Your task to perform on an android device: Open the calendar app, open the side menu, and click the "Day" option Image 0: 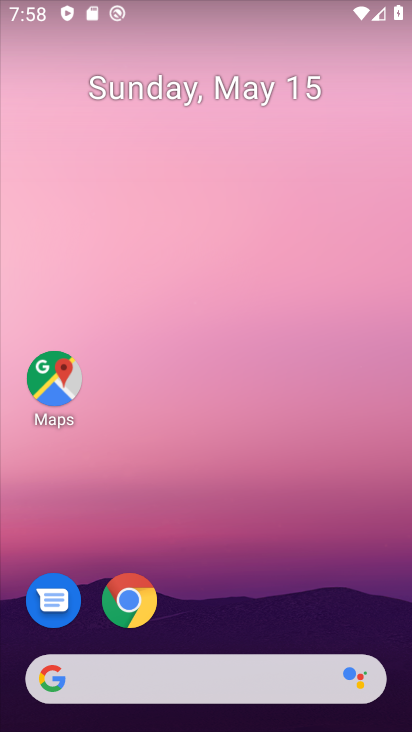
Step 0: drag from (179, 609) to (170, 111)
Your task to perform on an android device: Open the calendar app, open the side menu, and click the "Day" option Image 1: 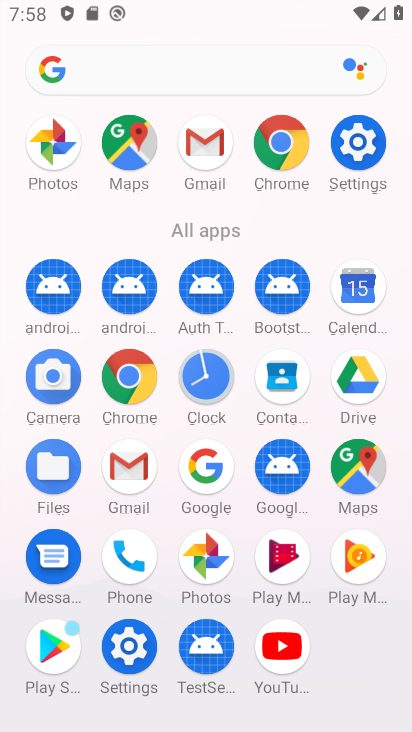
Step 1: click (366, 277)
Your task to perform on an android device: Open the calendar app, open the side menu, and click the "Day" option Image 2: 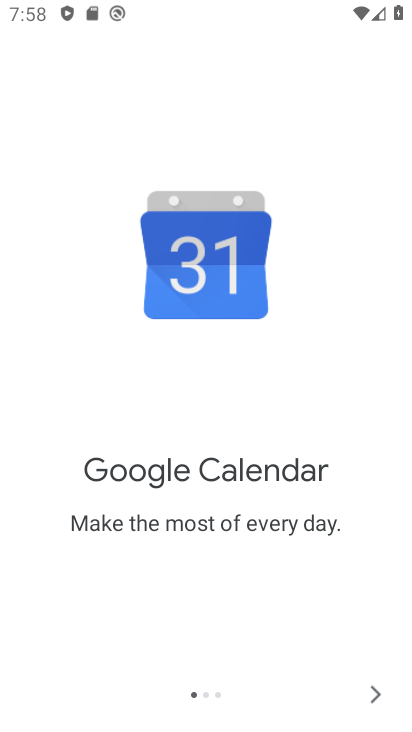
Step 2: click (381, 693)
Your task to perform on an android device: Open the calendar app, open the side menu, and click the "Day" option Image 3: 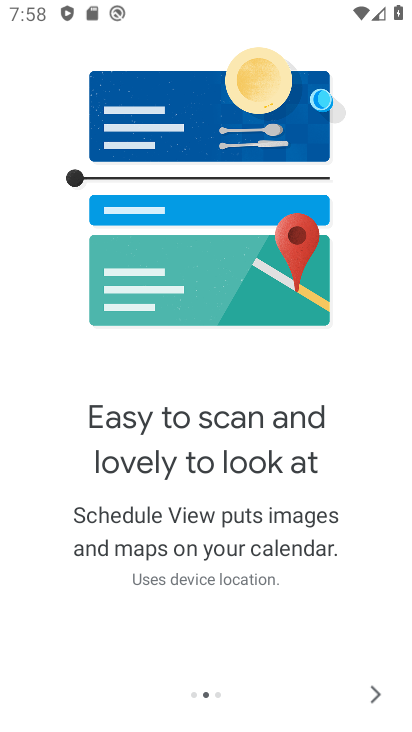
Step 3: click (378, 693)
Your task to perform on an android device: Open the calendar app, open the side menu, and click the "Day" option Image 4: 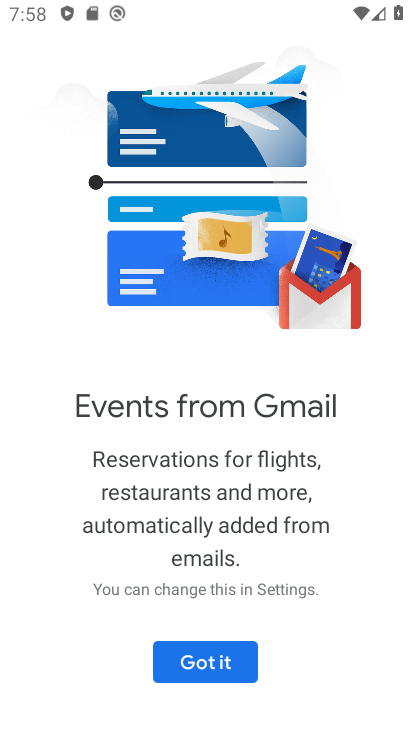
Step 4: click (217, 661)
Your task to perform on an android device: Open the calendar app, open the side menu, and click the "Day" option Image 5: 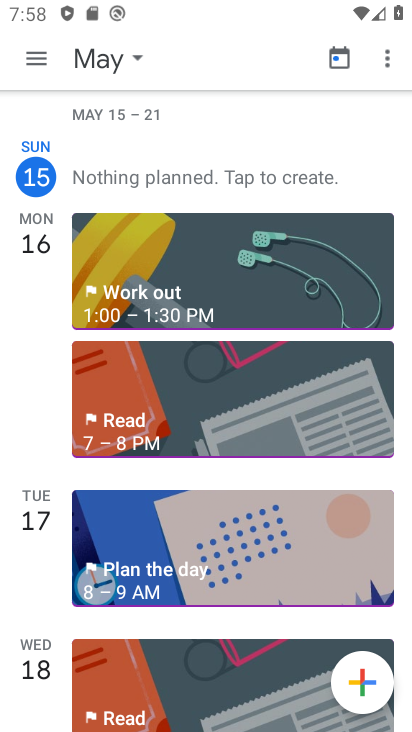
Step 5: click (21, 55)
Your task to perform on an android device: Open the calendar app, open the side menu, and click the "Day" option Image 6: 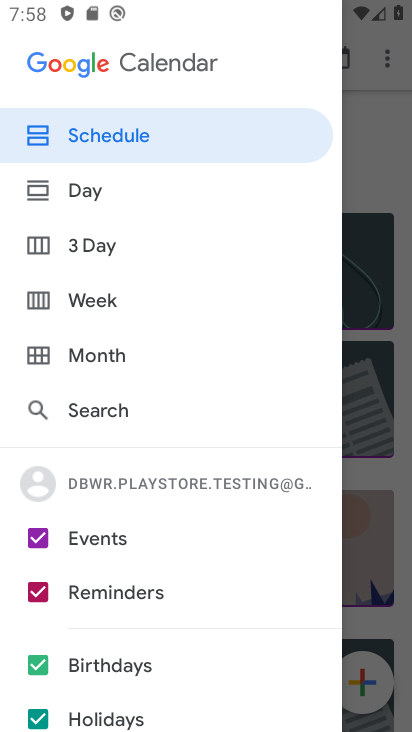
Step 6: click (76, 185)
Your task to perform on an android device: Open the calendar app, open the side menu, and click the "Day" option Image 7: 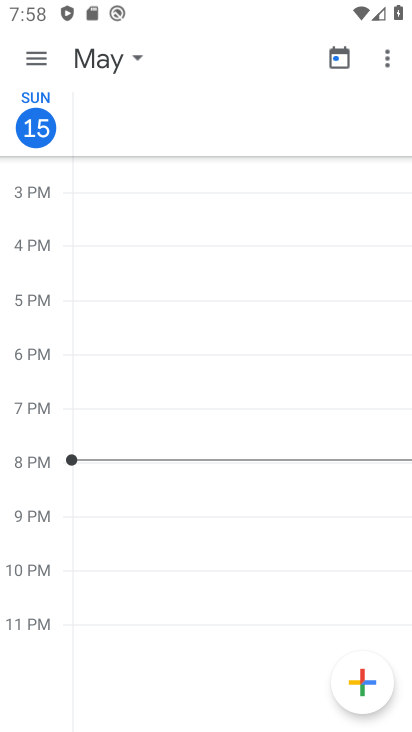
Step 7: task complete